Your task to perform on an android device: change the clock display to digital Image 0: 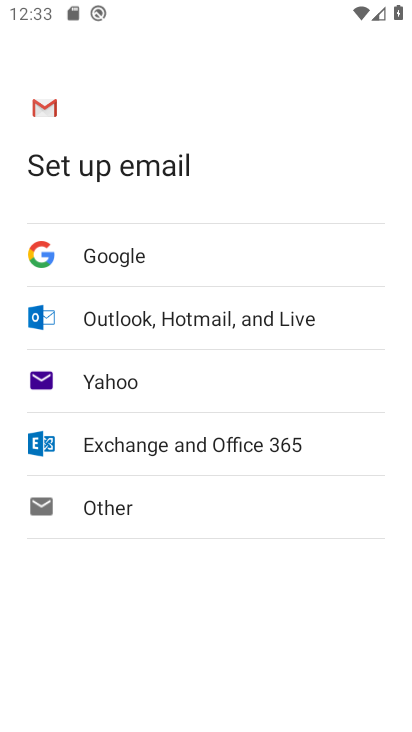
Step 0: press home button
Your task to perform on an android device: change the clock display to digital Image 1: 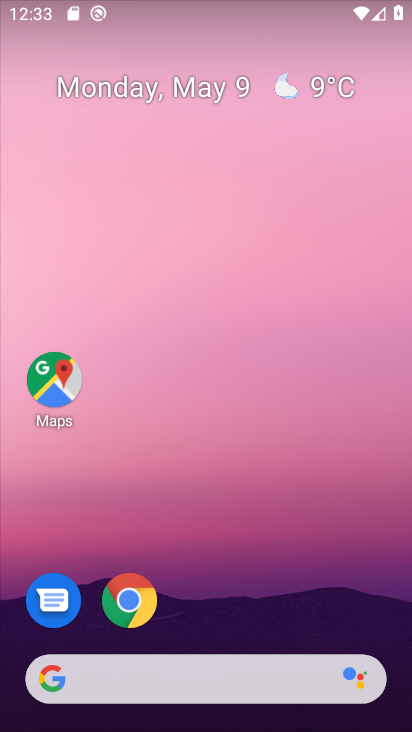
Step 1: drag from (305, 628) to (371, 162)
Your task to perform on an android device: change the clock display to digital Image 2: 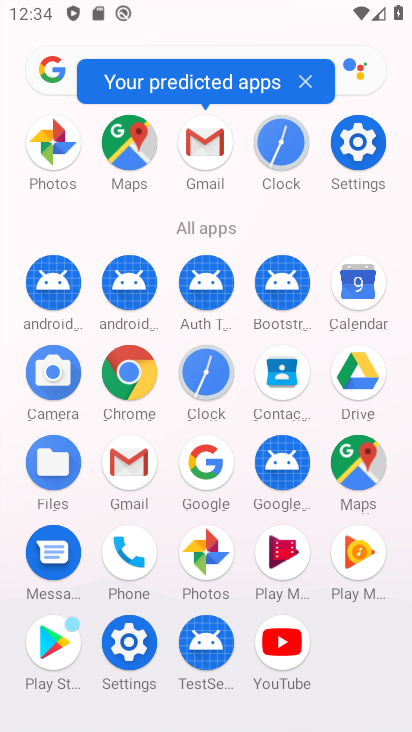
Step 2: click (220, 381)
Your task to perform on an android device: change the clock display to digital Image 3: 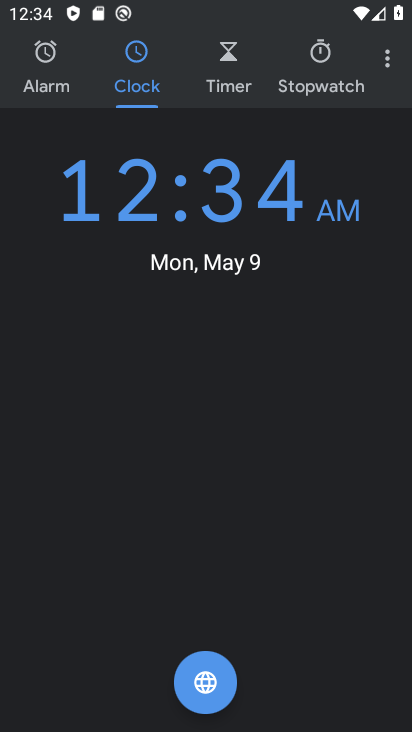
Step 3: click (391, 75)
Your task to perform on an android device: change the clock display to digital Image 4: 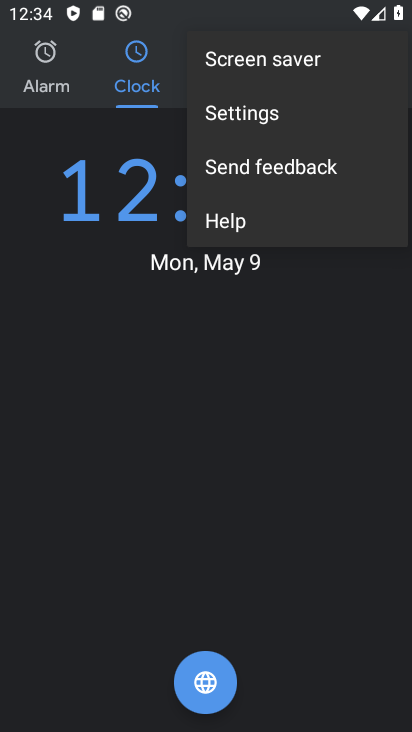
Step 4: click (360, 123)
Your task to perform on an android device: change the clock display to digital Image 5: 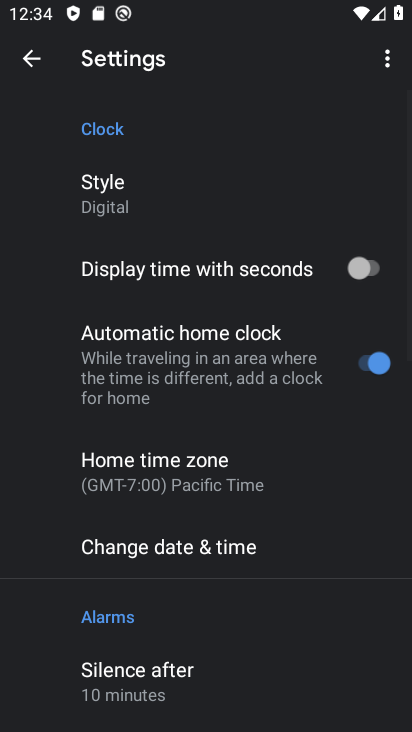
Step 5: click (279, 208)
Your task to perform on an android device: change the clock display to digital Image 6: 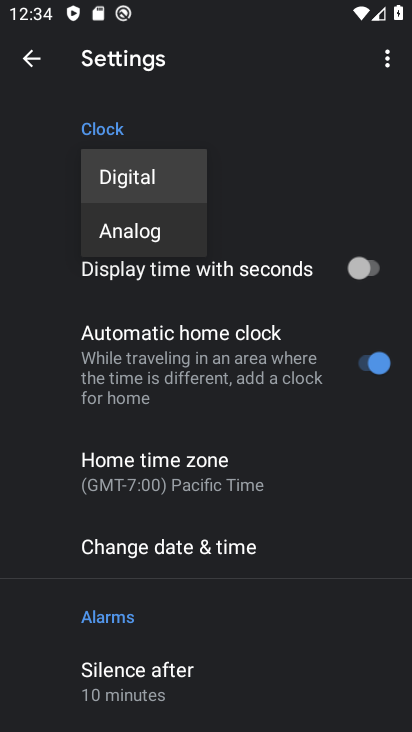
Step 6: task complete